Your task to perform on an android device: check android version Image 0: 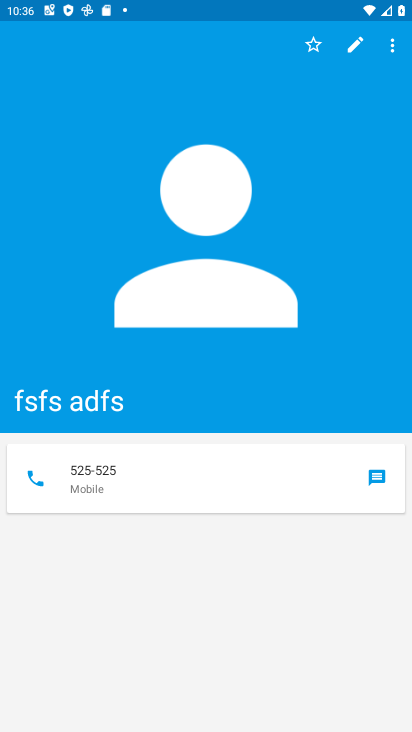
Step 0: press home button
Your task to perform on an android device: check android version Image 1: 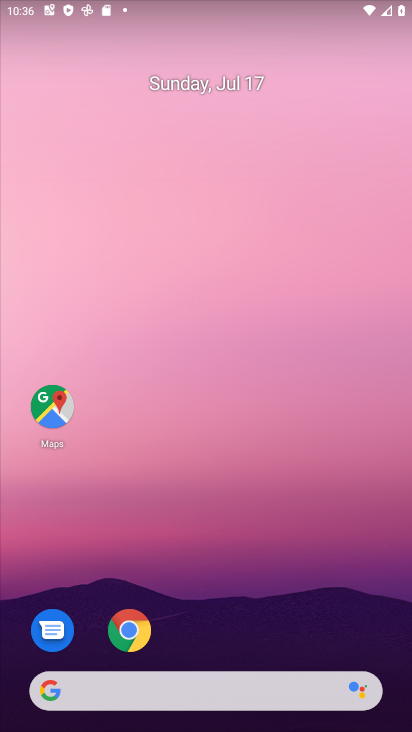
Step 1: drag from (212, 644) to (203, 166)
Your task to perform on an android device: check android version Image 2: 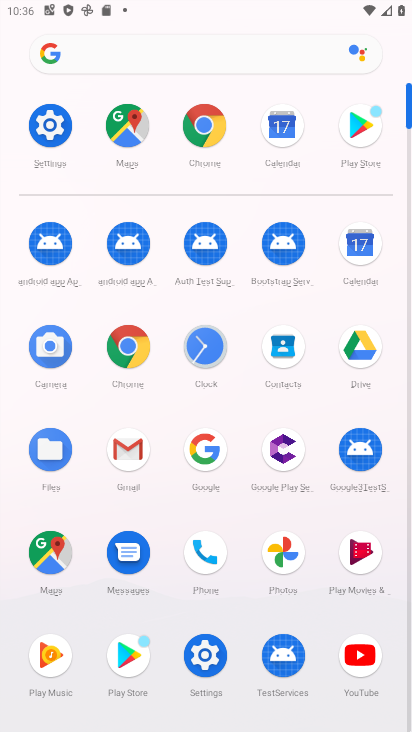
Step 2: click (63, 155)
Your task to perform on an android device: check android version Image 3: 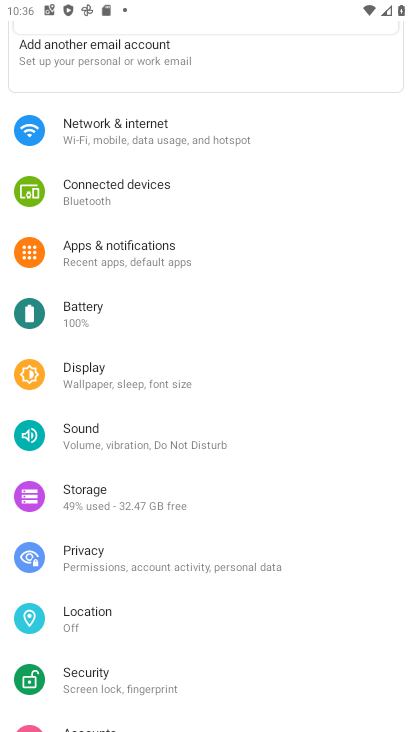
Step 3: drag from (169, 627) to (195, 274)
Your task to perform on an android device: check android version Image 4: 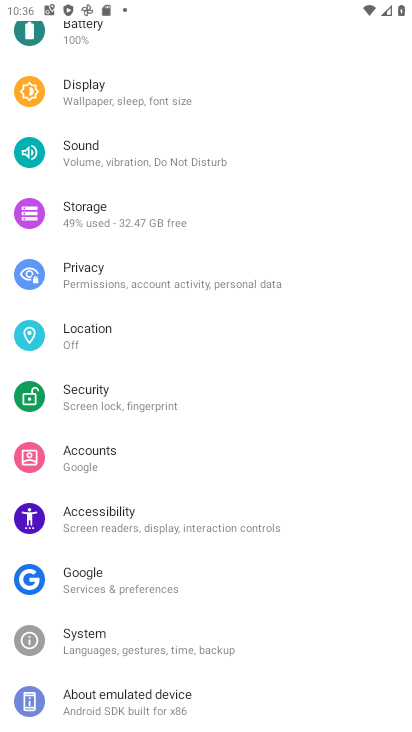
Step 4: click (207, 721)
Your task to perform on an android device: check android version Image 5: 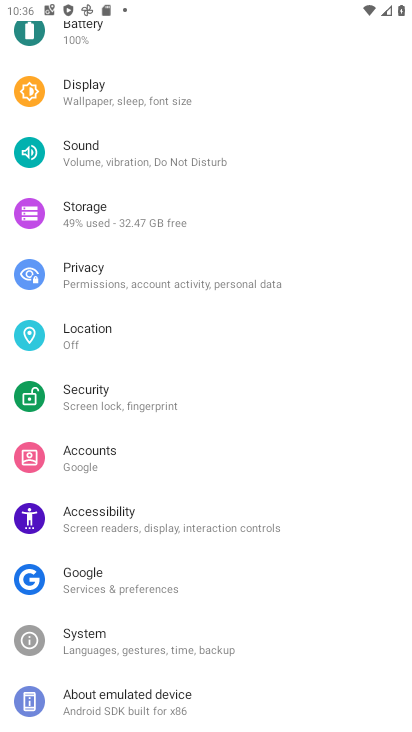
Step 5: click (207, 721)
Your task to perform on an android device: check android version Image 6: 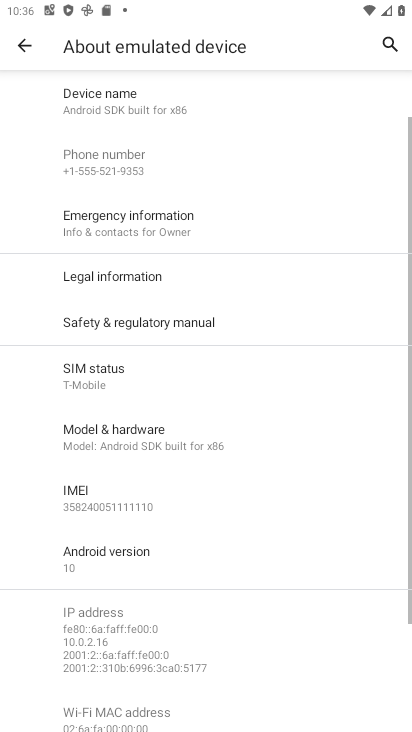
Step 6: task complete